Your task to perform on an android device: Go to eBay Image 0: 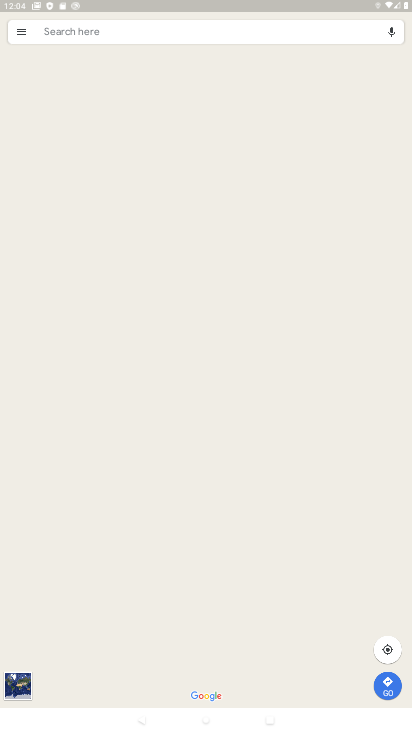
Step 0: press home button
Your task to perform on an android device: Go to eBay Image 1: 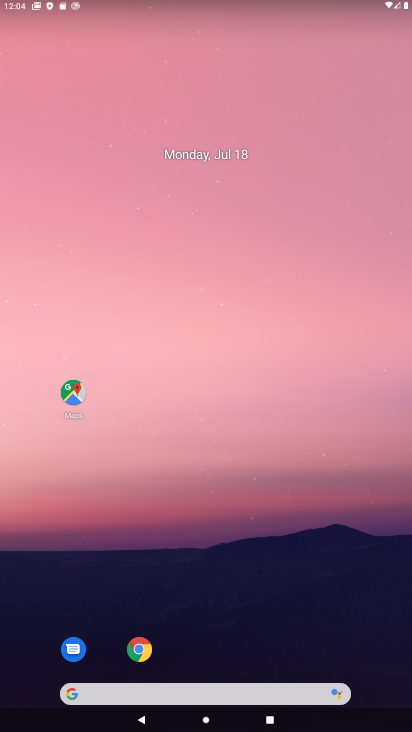
Step 1: click (140, 653)
Your task to perform on an android device: Go to eBay Image 2: 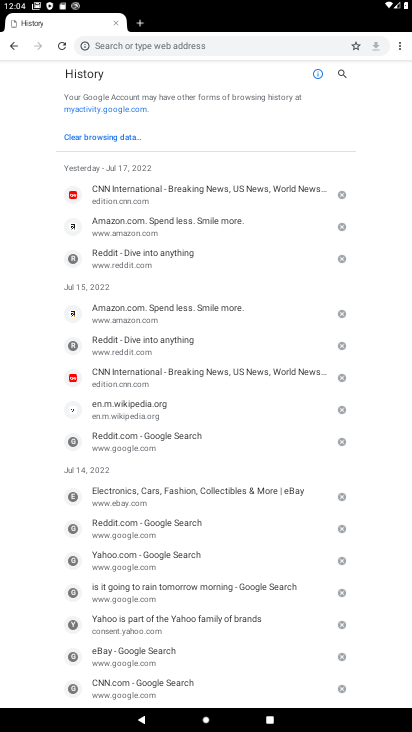
Step 2: click (139, 43)
Your task to perform on an android device: Go to eBay Image 3: 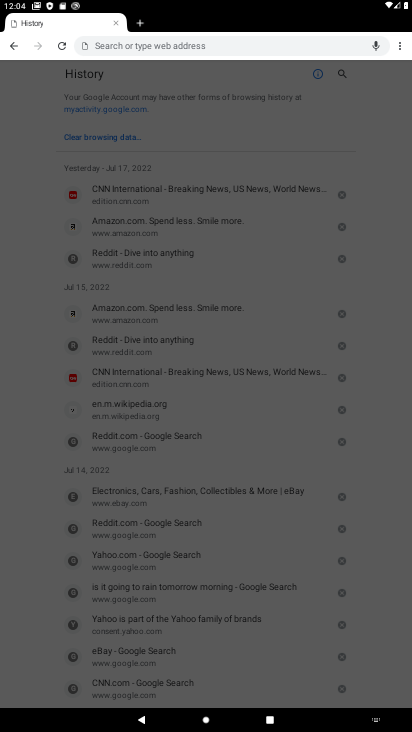
Step 3: type "eBay"
Your task to perform on an android device: Go to eBay Image 4: 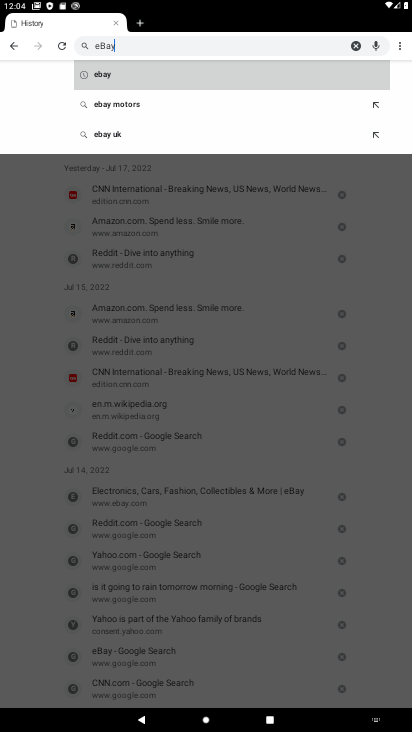
Step 4: click (111, 76)
Your task to perform on an android device: Go to eBay Image 5: 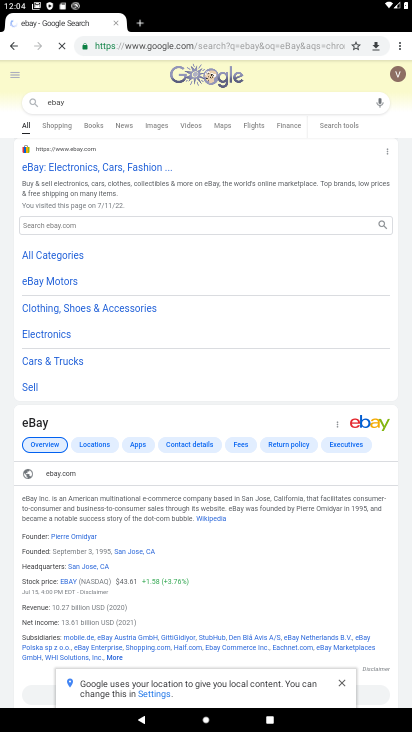
Step 5: click (64, 171)
Your task to perform on an android device: Go to eBay Image 6: 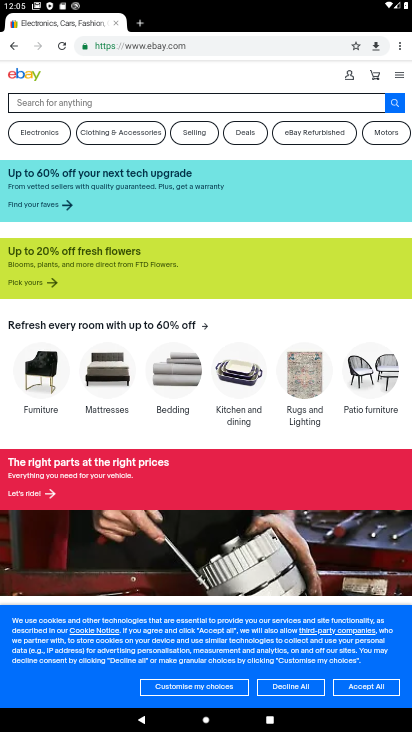
Step 6: task complete